Your task to perform on an android device: Go to Wikipedia Image 0: 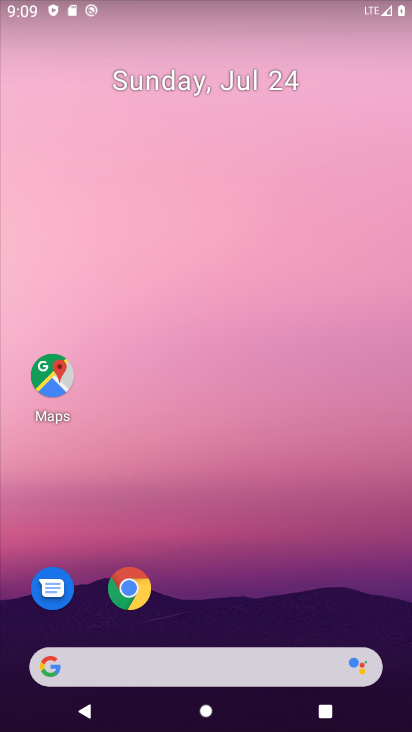
Step 0: click (218, 669)
Your task to perform on an android device: Go to Wikipedia Image 1: 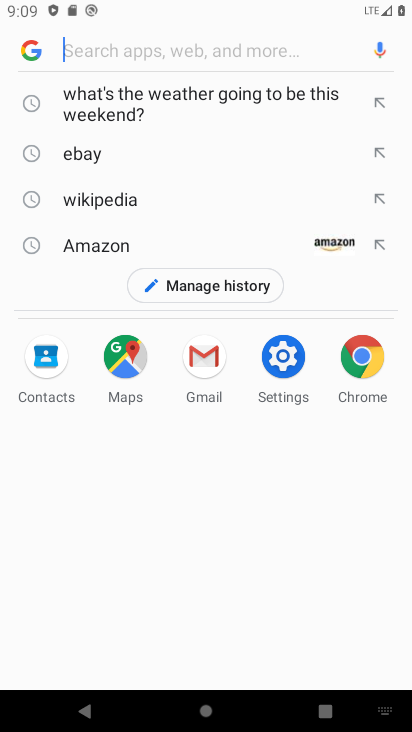
Step 1: click (126, 209)
Your task to perform on an android device: Go to Wikipedia Image 2: 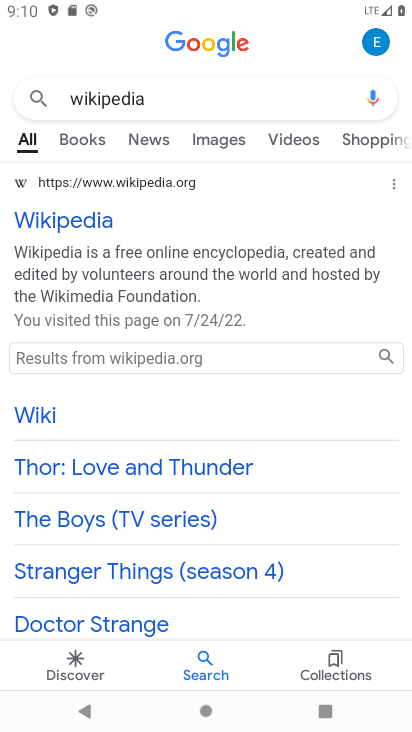
Step 2: click (123, 178)
Your task to perform on an android device: Go to Wikipedia Image 3: 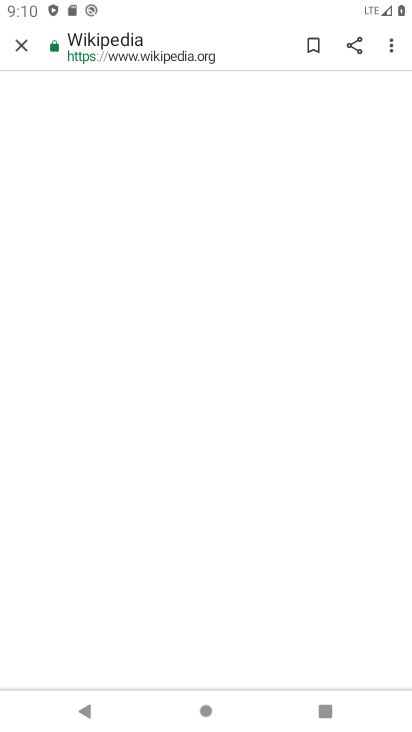
Step 3: task complete